Your task to perform on an android device: check google app version Image 0: 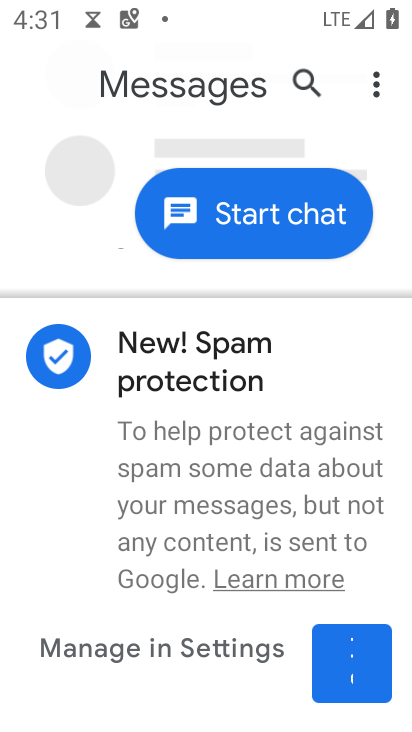
Step 0: press home button
Your task to perform on an android device: check google app version Image 1: 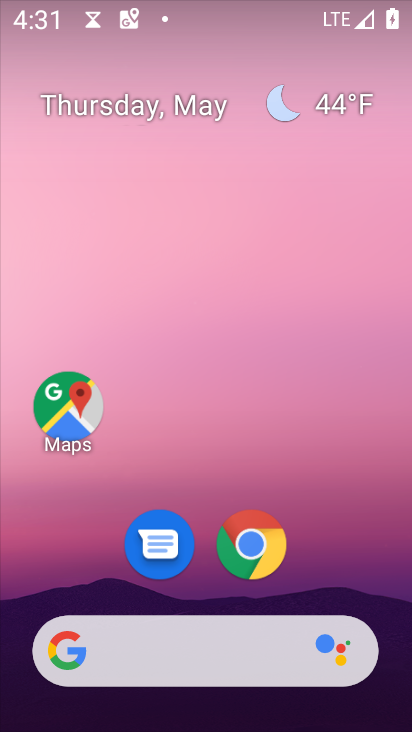
Step 1: drag from (329, 587) to (311, 120)
Your task to perform on an android device: check google app version Image 2: 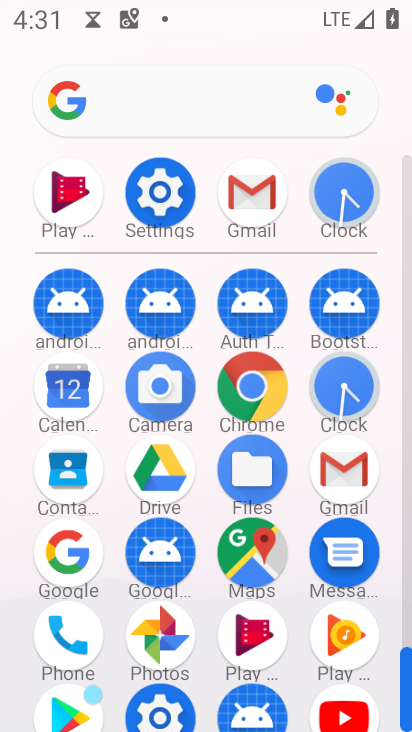
Step 2: click (76, 550)
Your task to perform on an android device: check google app version Image 3: 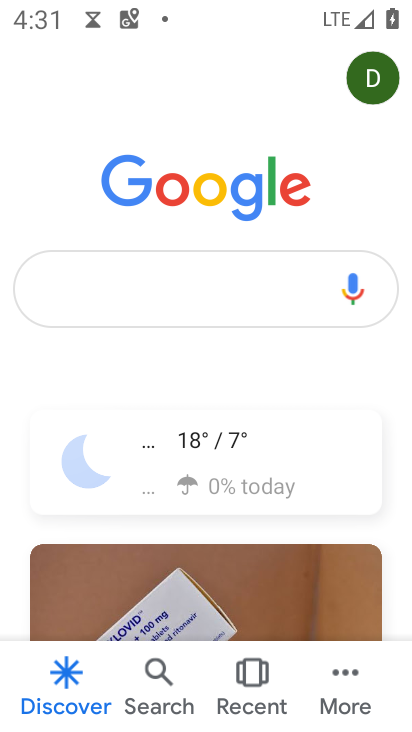
Step 3: click (361, 690)
Your task to perform on an android device: check google app version Image 4: 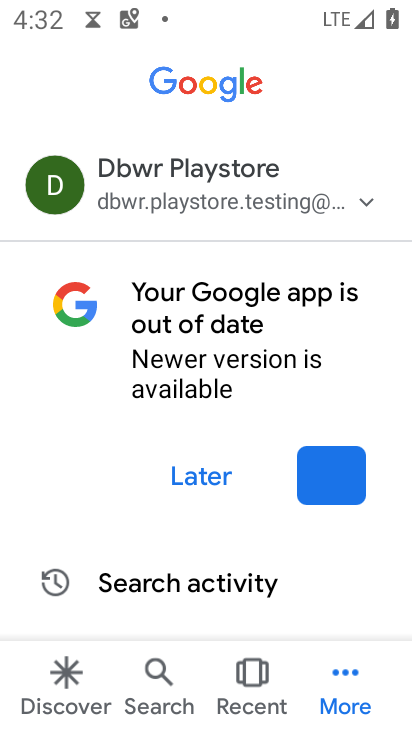
Step 4: drag from (207, 490) to (238, 302)
Your task to perform on an android device: check google app version Image 5: 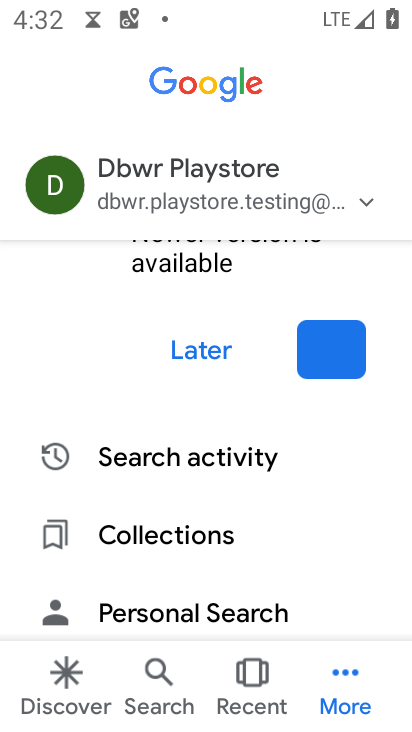
Step 5: drag from (255, 606) to (304, 344)
Your task to perform on an android device: check google app version Image 6: 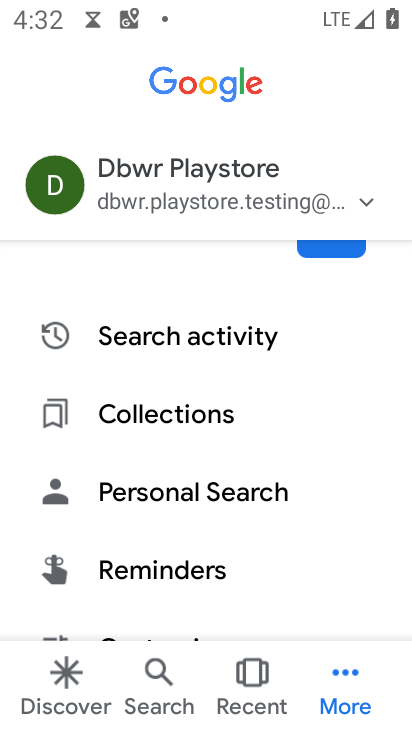
Step 6: drag from (222, 556) to (241, 308)
Your task to perform on an android device: check google app version Image 7: 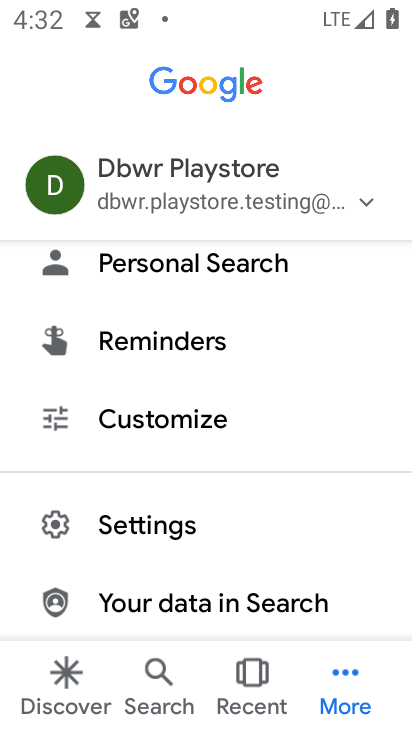
Step 7: drag from (173, 570) to (198, 293)
Your task to perform on an android device: check google app version Image 8: 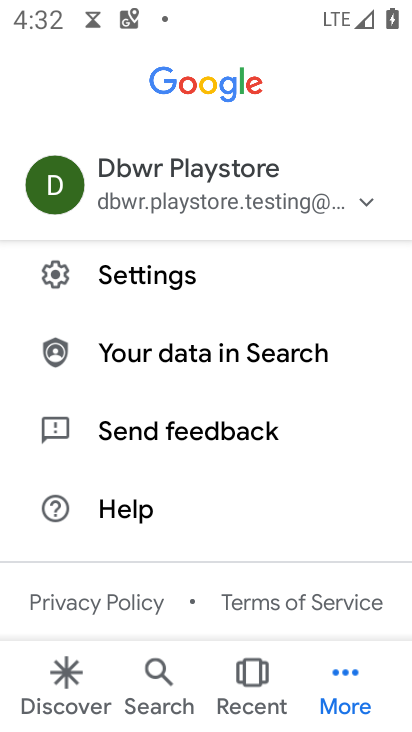
Step 8: drag from (203, 488) to (239, 273)
Your task to perform on an android device: check google app version Image 9: 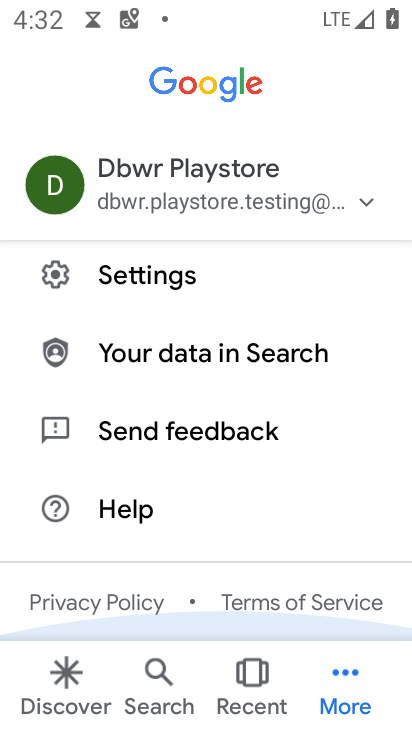
Step 9: click (240, 268)
Your task to perform on an android device: check google app version Image 10: 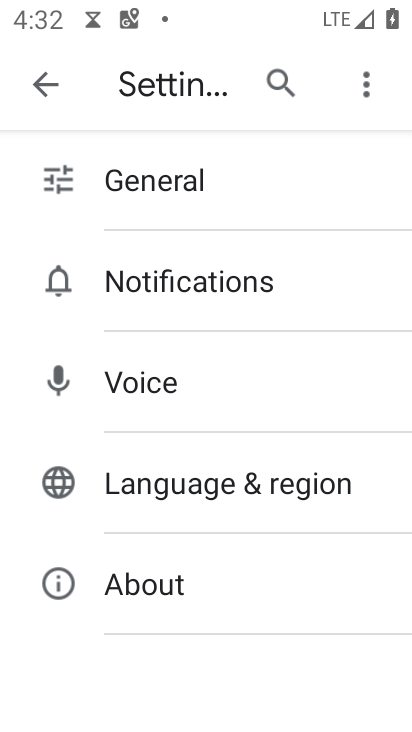
Step 10: click (189, 578)
Your task to perform on an android device: check google app version Image 11: 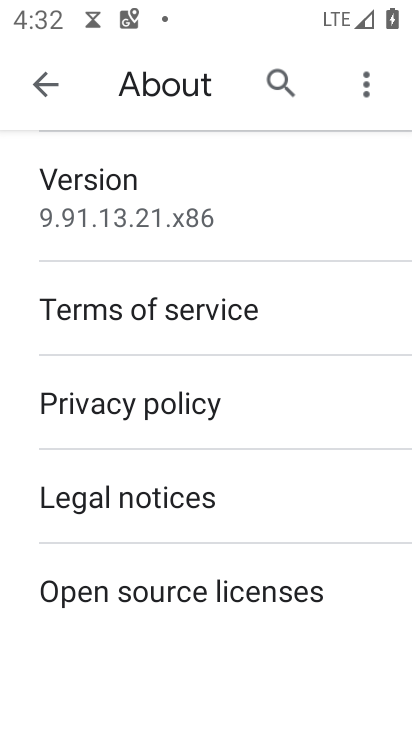
Step 11: click (152, 204)
Your task to perform on an android device: check google app version Image 12: 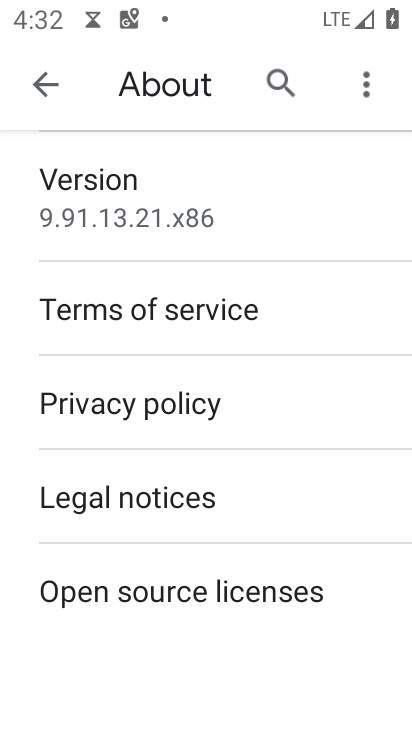
Step 12: task complete